Your task to perform on an android device: set an alarm Image 0: 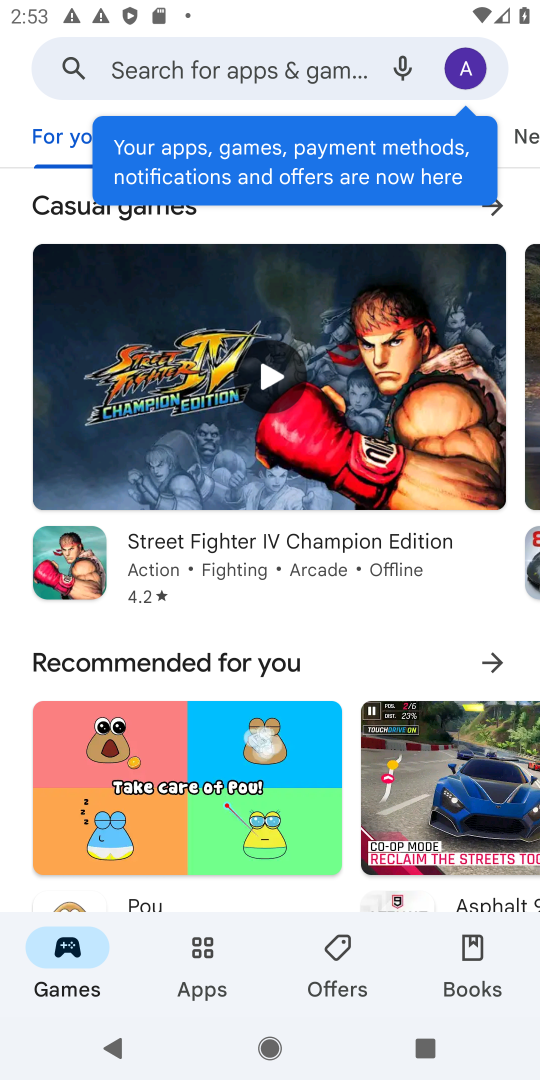
Step 0: press home button
Your task to perform on an android device: set an alarm Image 1: 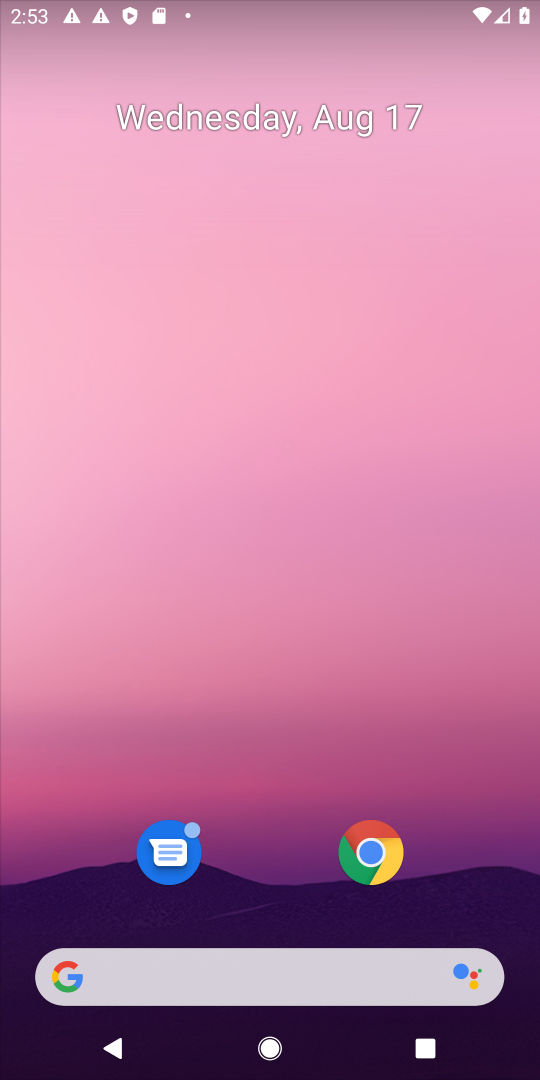
Step 1: drag from (267, 847) to (259, 36)
Your task to perform on an android device: set an alarm Image 2: 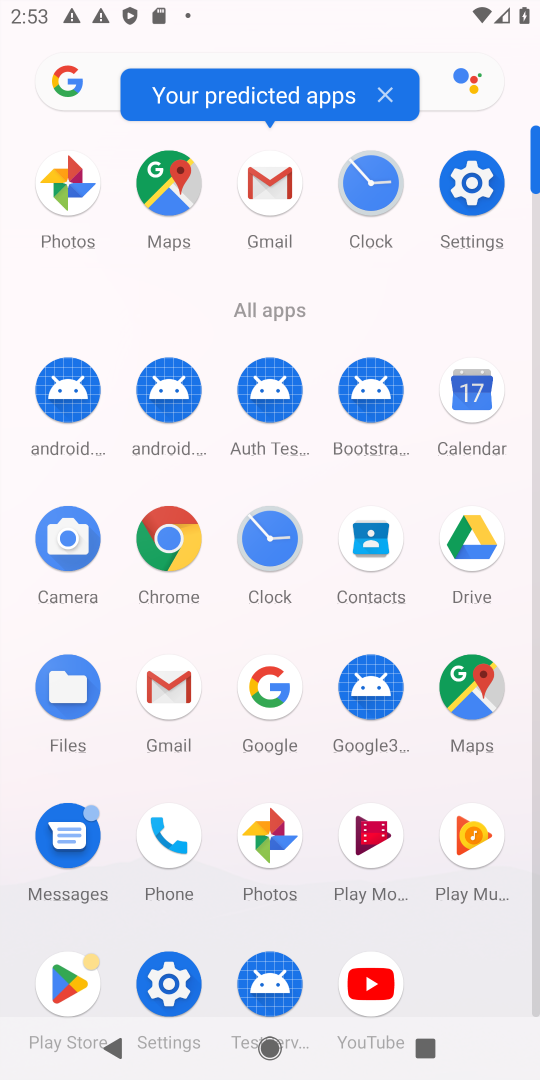
Step 2: click (271, 525)
Your task to perform on an android device: set an alarm Image 3: 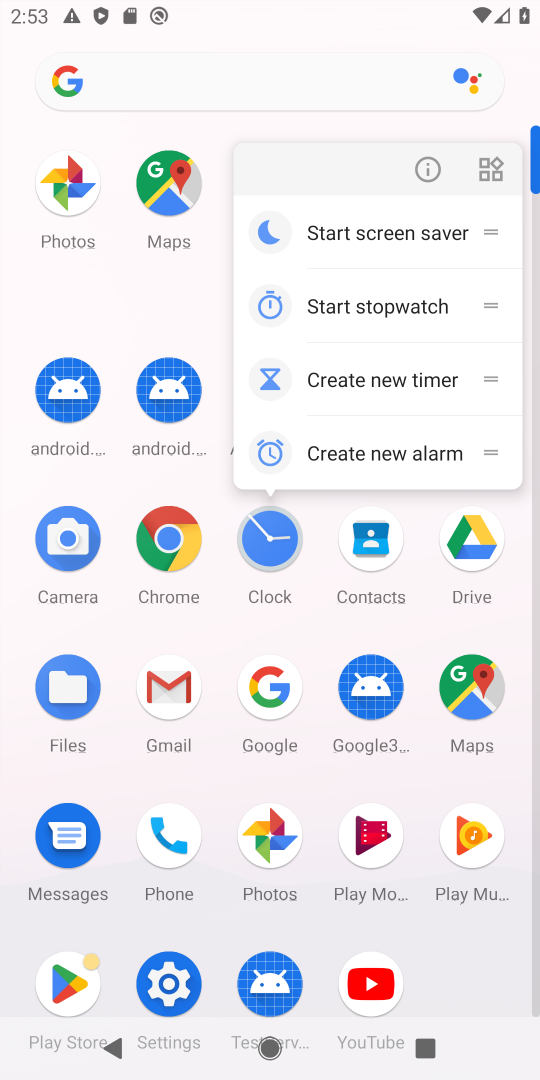
Step 3: click (269, 531)
Your task to perform on an android device: set an alarm Image 4: 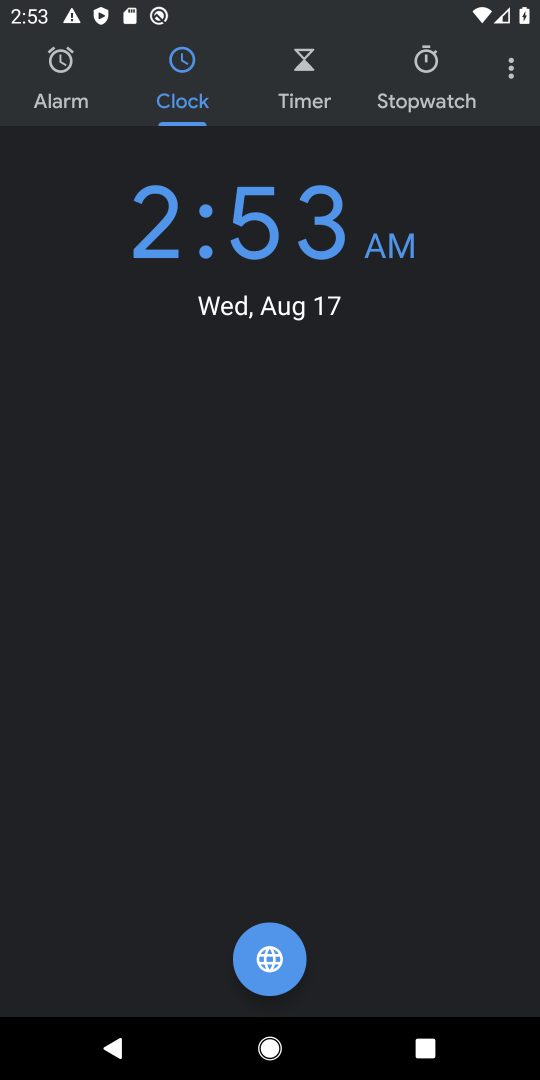
Step 4: click (70, 85)
Your task to perform on an android device: set an alarm Image 5: 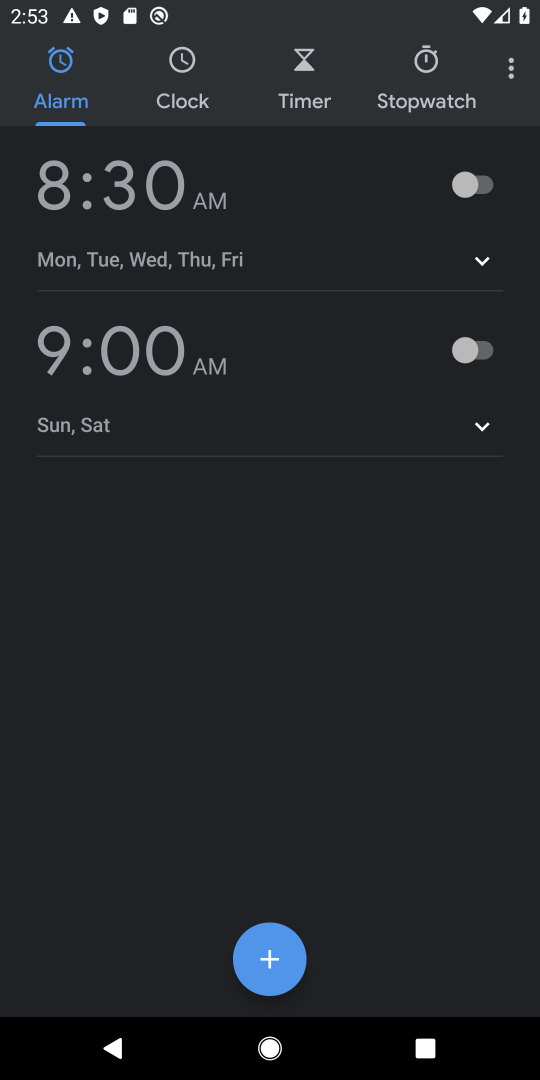
Step 5: click (263, 953)
Your task to perform on an android device: set an alarm Image 6: 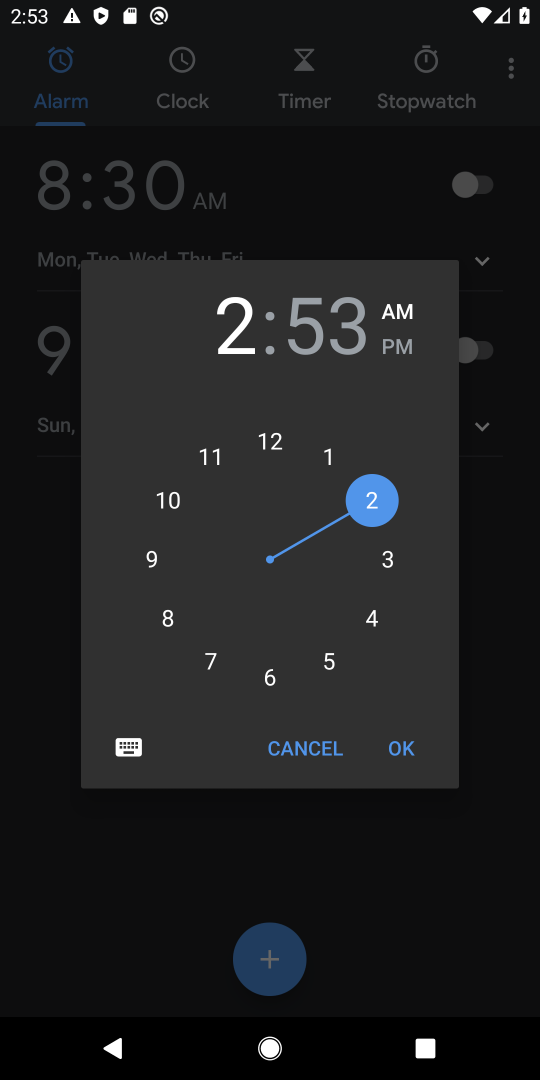
Step 6: click (404, 751)
Your task to perform on an android device: set an alarm Image 7: 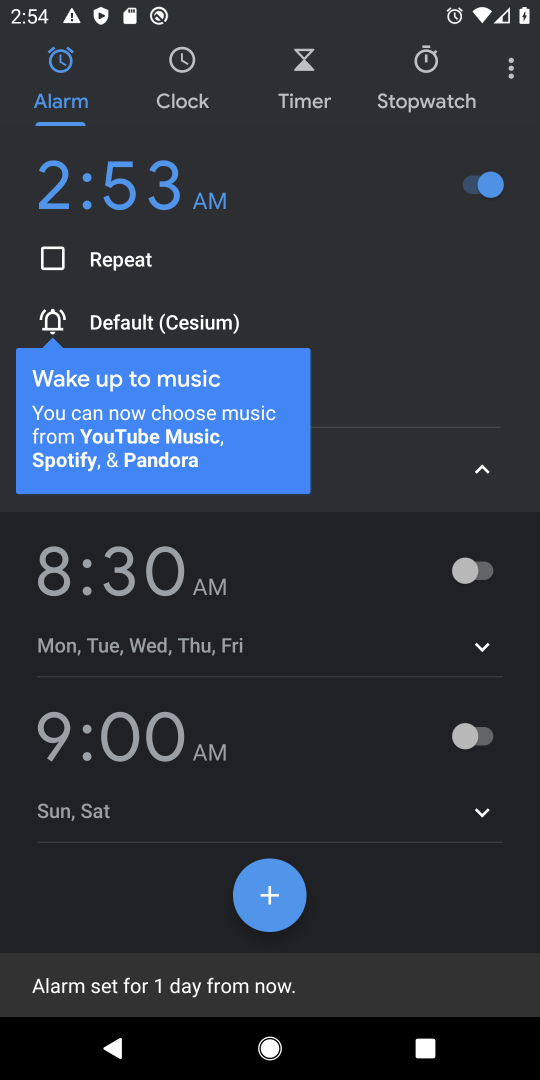
Step 7: task complete